Your task to perform on an android device: check android version Image 0: 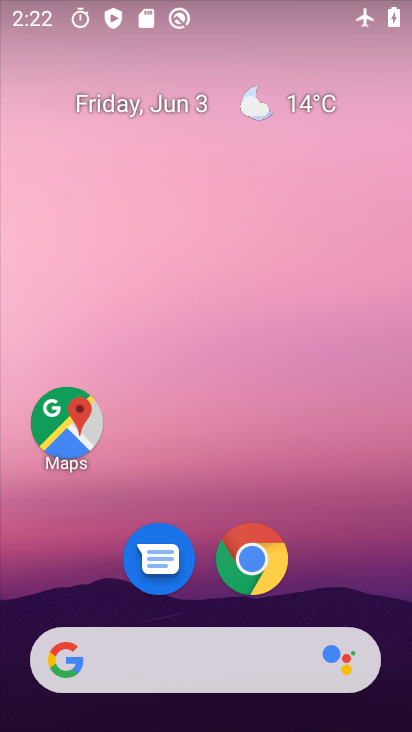
Step 0: drag from (249, 611) to (186, 2)
Your task to perform on an android device: check android version Image 1: 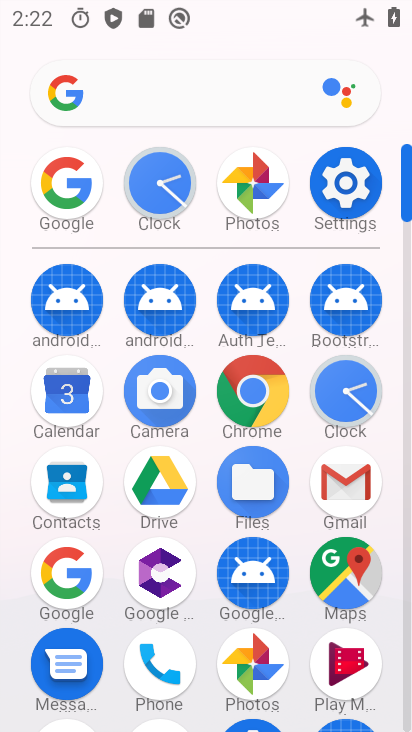
Step 1: click (329, 198)
Your task to perform on an android device: check android version Image 2: 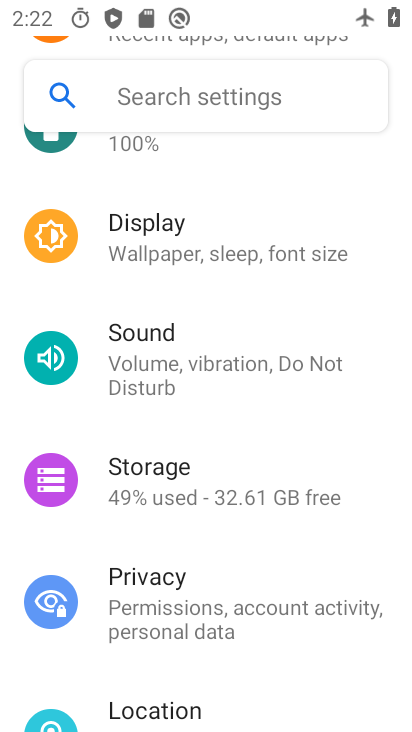
Step 2: drag from (247, 609) to (246, 42)
Your task to perform on an android device: check android version Image 3: 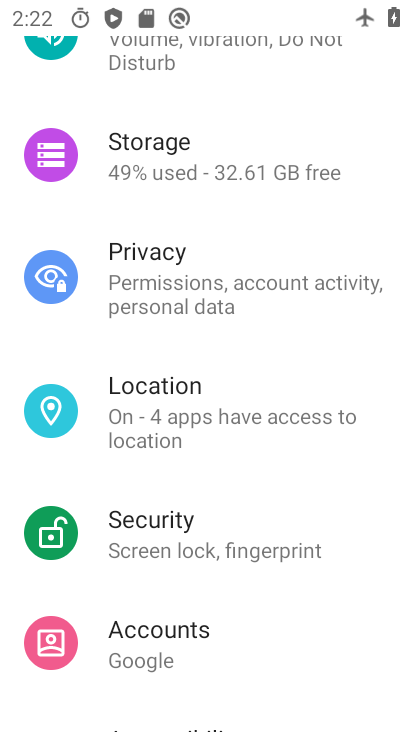
Step 3: drag from (205, 488) to (201, 9)
Your task to perform on an android device: check android version Image 4: 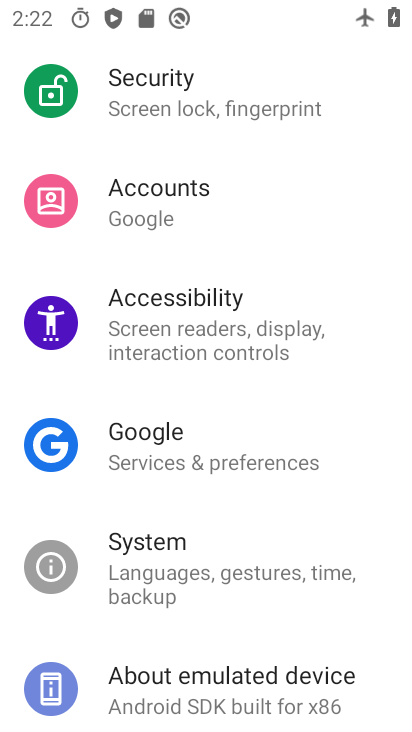
Step 4: click (242, 677)
Your task to perform on an android device: check android version Image 5: 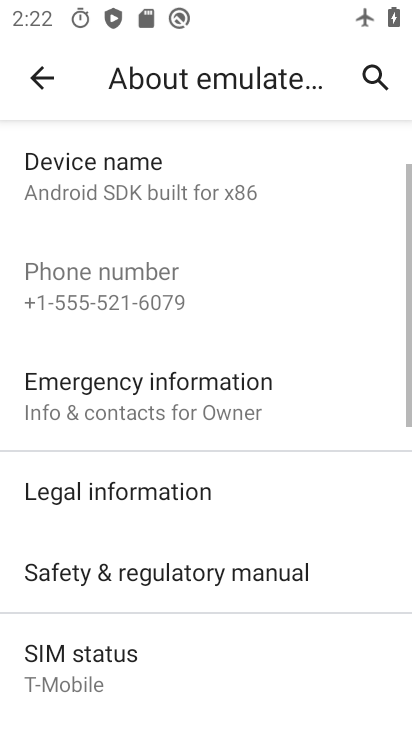
Step 5: drag from (155, 605) to (107, 128)
Your task to perform on an android device: check android version Image 6: 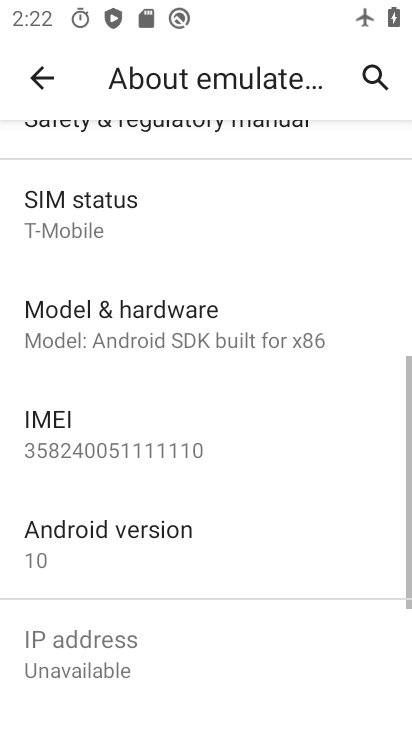
Step 6: click (80, 532)
Your task to perform on an android device: check android version Image 7: 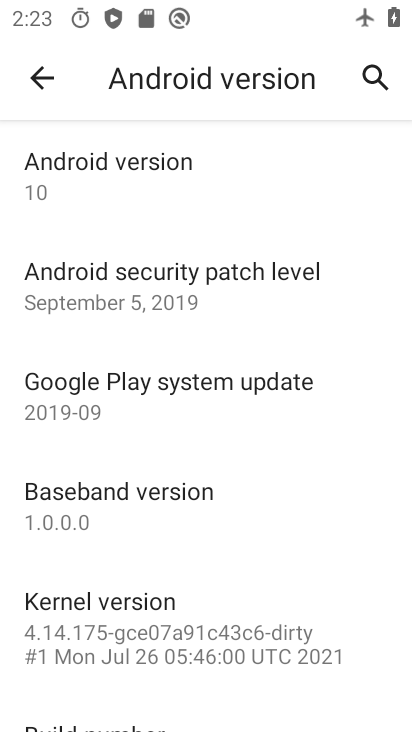
Step 7: task complete